Your task to perform on an android device: Go to Android settings Image 0: 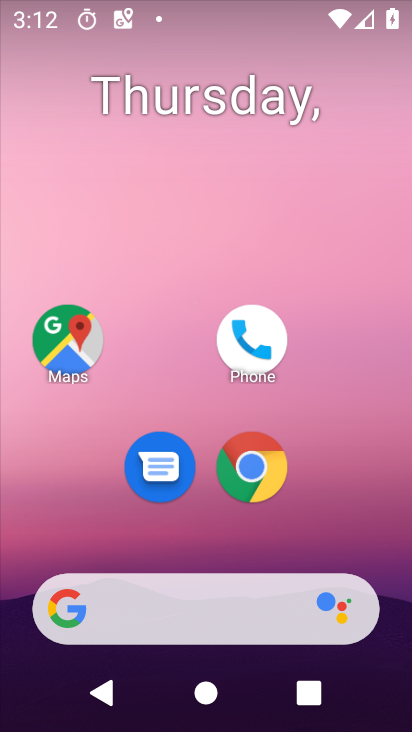
Step 0: drag from (181, 555) to (205, 265)
Your task to perform on an android device: Go to Android settings Image 1: 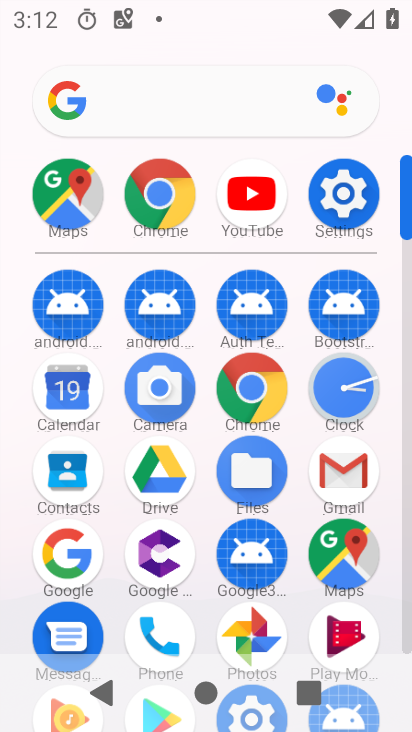
Step 1: click (343, 200)
Your task to perform on an android device: Go to Android settings Image 2: 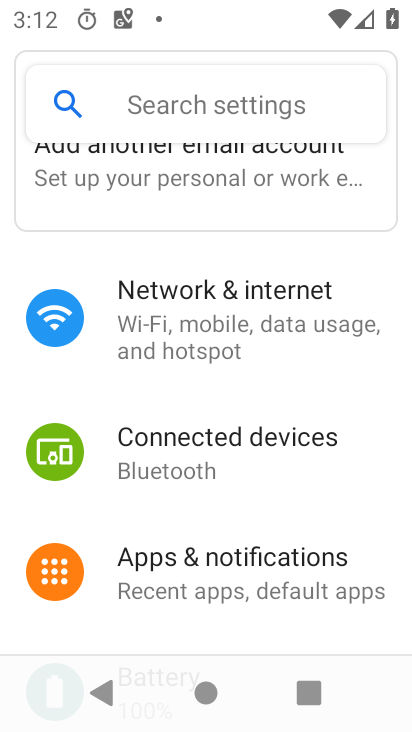
Step 2: drag from (210, 632) to (263, 14)
Your task to perform on an android device: Go to Android settings Image 3: 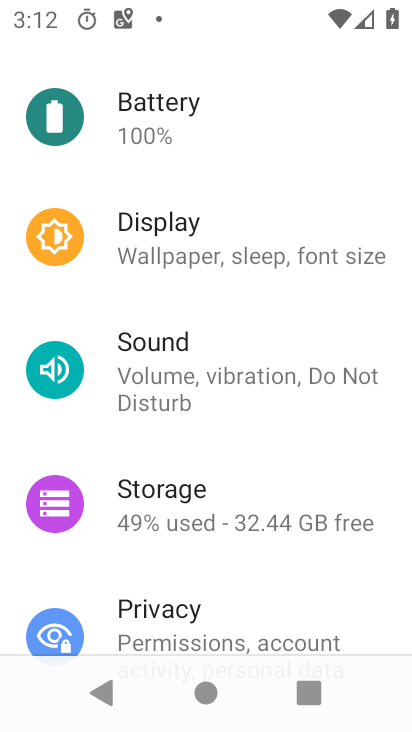
Step 3: drag from (225, 577) to (234, 107)
Your task to perform on an android device: Go to Android settings Image 4: 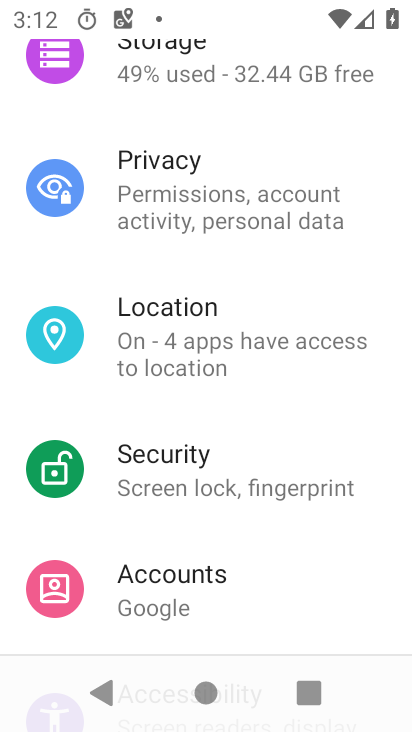
Step 4: drag from (207, 608) to (222, 125)
Your task to perform on an android device: Go to Android settings Image 5: 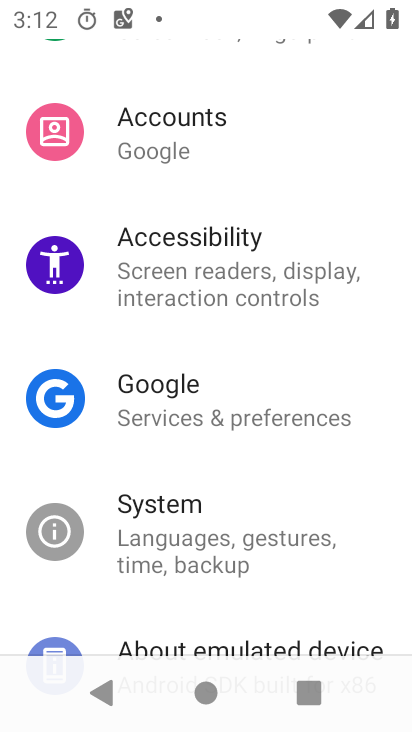
Step 5: drag from (199, 531) to (270, 65)
Your task to perform on an android device: Go to Android settings Image 6: 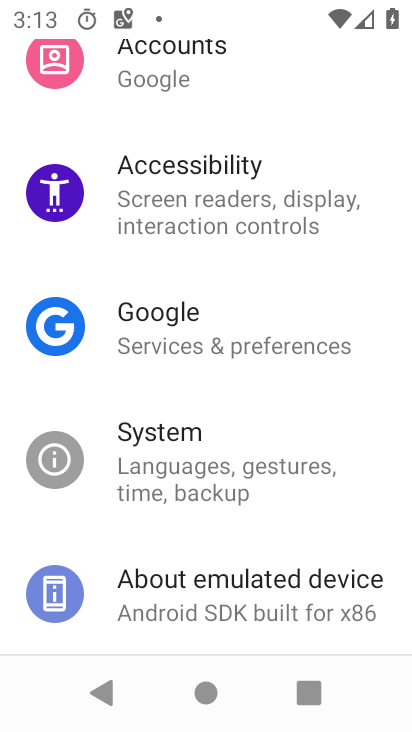
Step 6: click (191, 590)
Your task to perform on an android device: Go to Android settings Image 7: 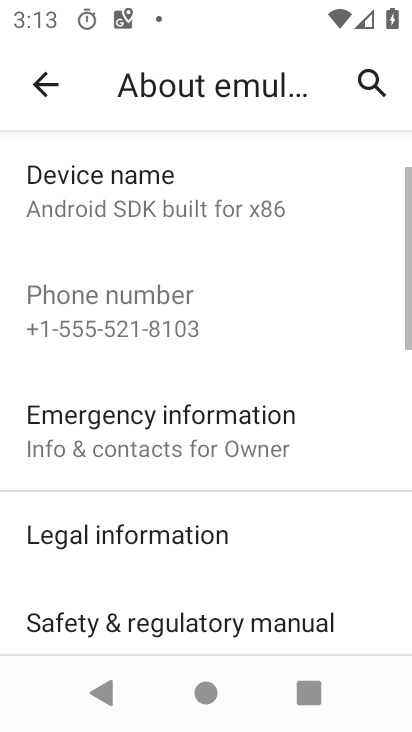
Step 7: drag from (199, 542) to (217, 212)
Your task to perform on an android device: Go to Android settings Image 8: 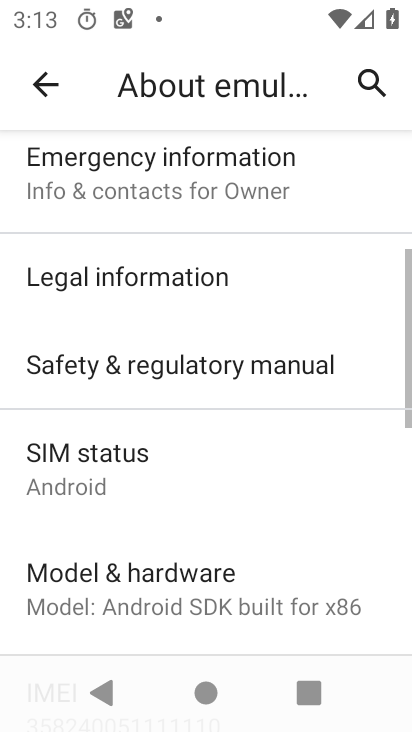
Step 8: drag from (187, 533) to (243, 171)
Your task to perform on an android device: Go to Android settings Image 9: 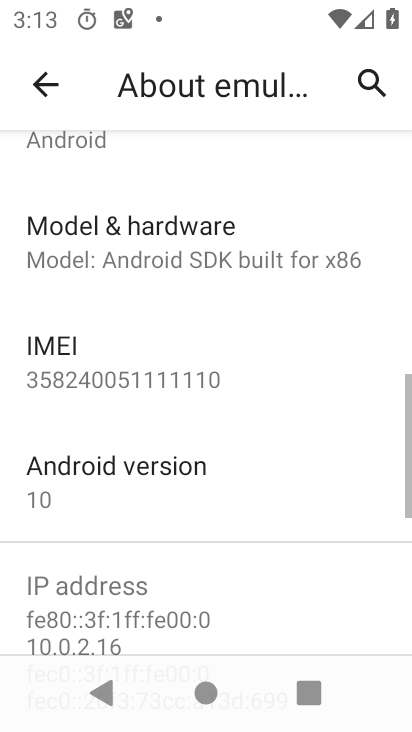
Step 9: click (145, 500)
Your task to perform on an android device: Go to Android settings Image 10: 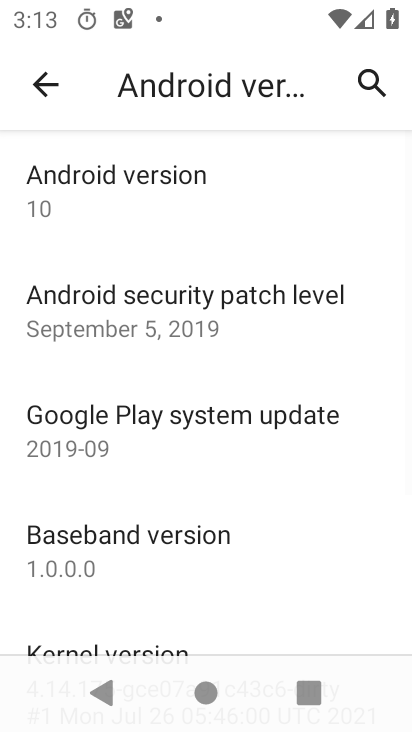
Step 10: drag from (200, 531) to (209, 275)
Your task to perform on an android device: Go to Android settings Image 11: 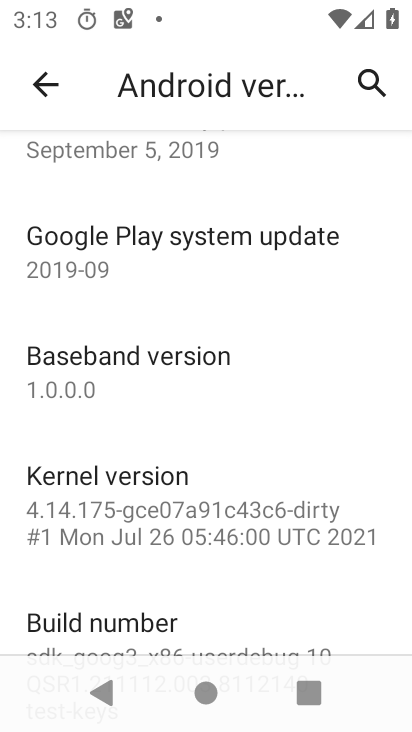
Step 11: drag from (210, 497) to (252, 231)
Your task to perform on an android device: Go to Android settings Image 12: 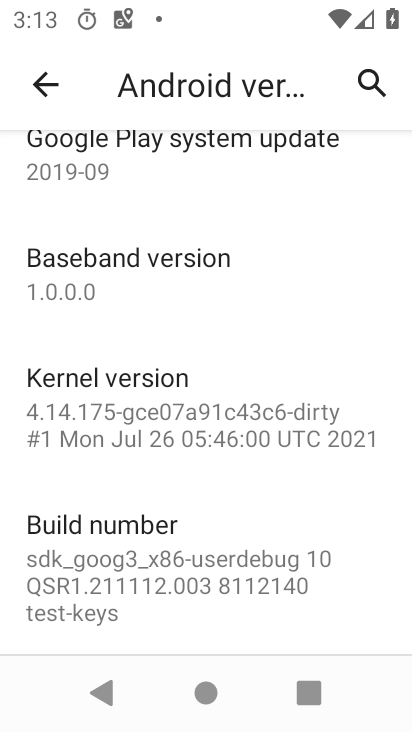
Step 12: drag from (266, 334) to (151, 690)
Your task to perform on an android device: Go to Android settings Image 13: 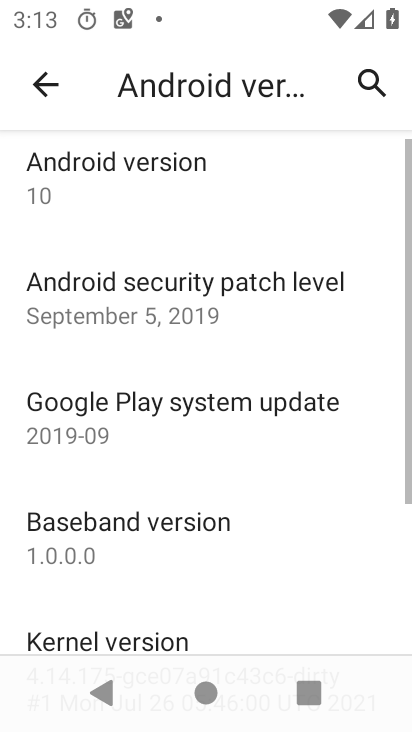
Step 13: click (127, 172)
Your task to perform on an android device: Go to Android settings Image 14: 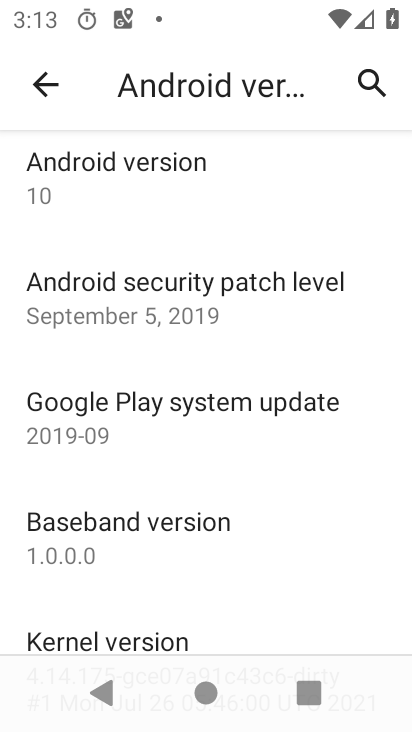
Step 14: task complete